Your task to perform on an android device: Open my contact list Image 0: 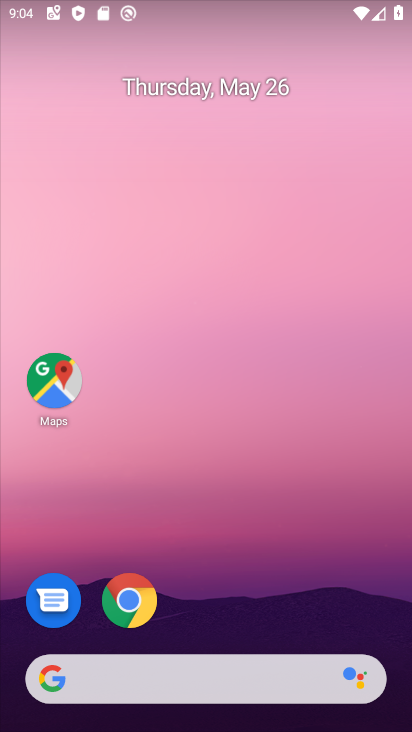
Step 0: drag from (192, 626) to (216, 63)
Your task to perform on an android device: Open my contact list Image 1: 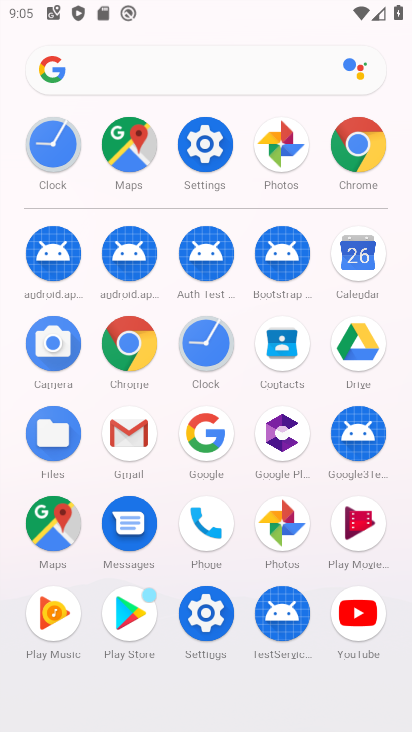
Step 1: click (267, 336)
Your task to perform on an android device: Open my contact list Image 2: 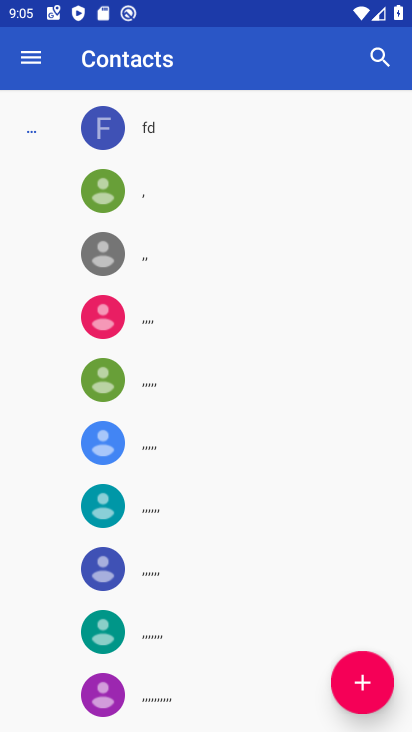
Step 2: task complete